Your task to perform on an android device: set an alarm Image 0: 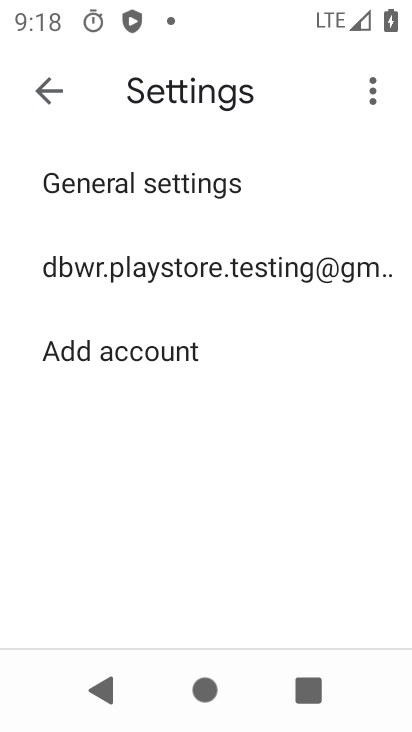
Step 0: press home button
Your task to perform on an android device: set an alarm Image 1: 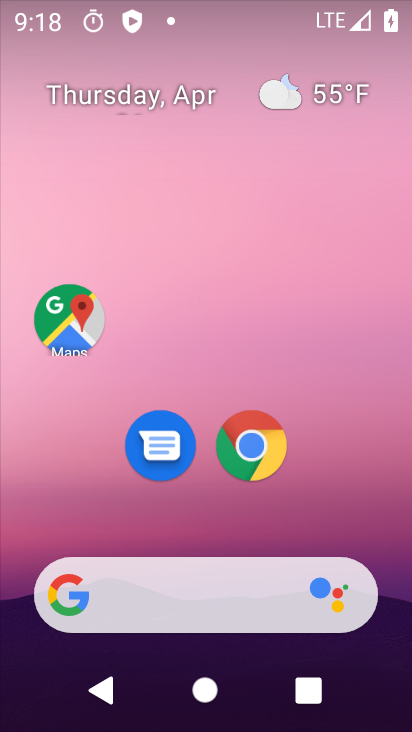
Step 1: drag from (382, 543) to (389, 15)
Your task to perform on an android device: set an alarm Image 2: 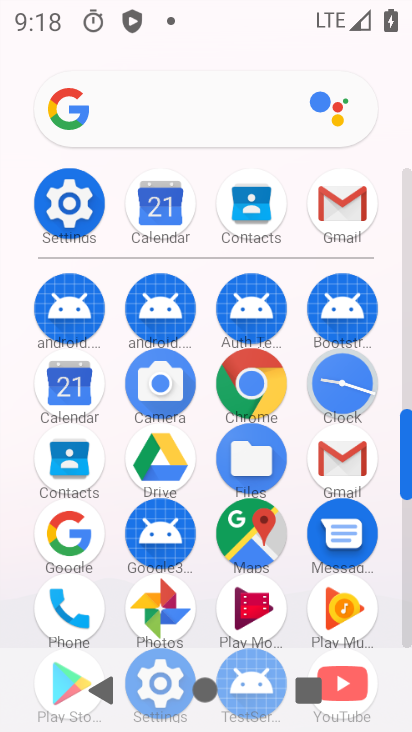
Step 2: click (325, 391)
Your task to perform on an android device: set an alarm Image 3: 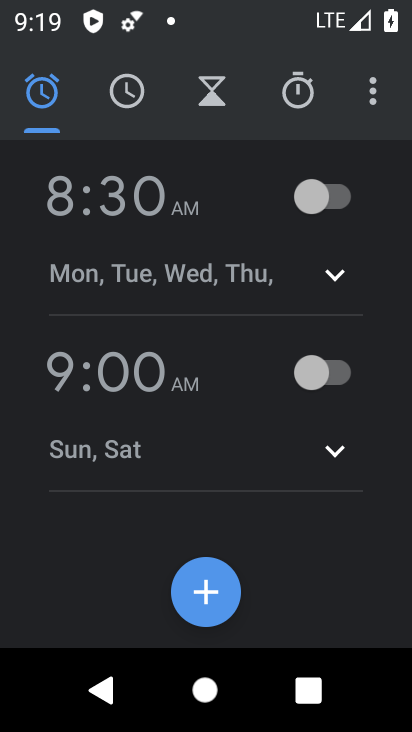
Step 3: click (204, 599)
Your task to perform on an android device: set an alarm Image 4: 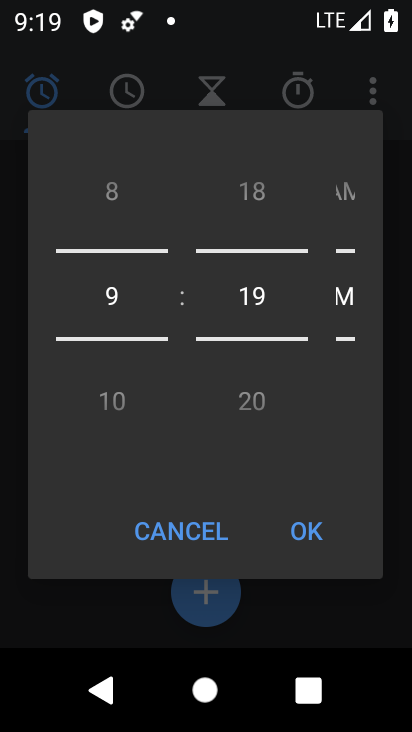
Step 4: drag from (105, 295) to (102, 564)
Your task to perform on an android device: set an alarm Image 5: 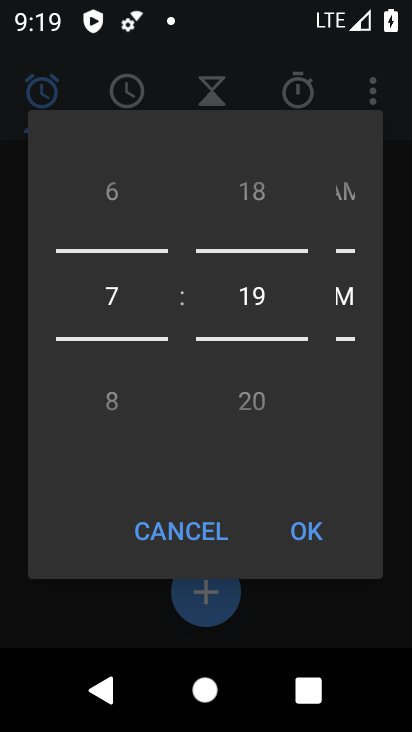
Step 5: drag from (127, 290) to (128, 532)
Your task to perform on an android device: set an alarm Image 6: 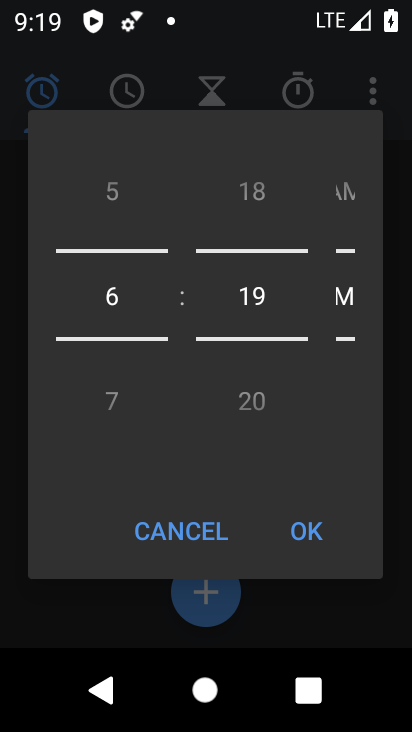
Step 6: drag from (267, 297) to (260, 595)
Your task to perform on an android device: set an alarm Image 7: 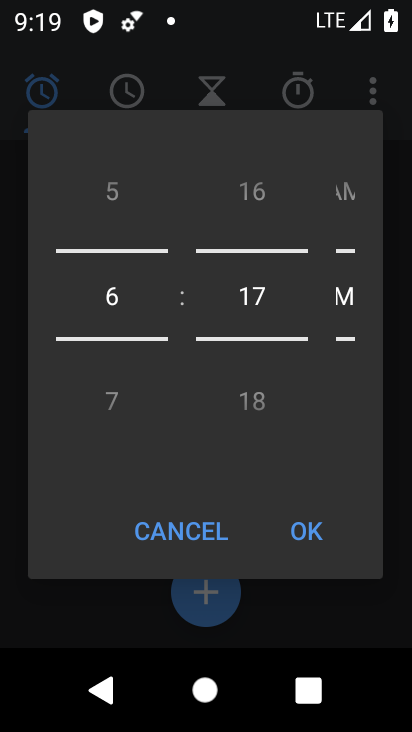
Step 7: drag from (252, 307) to (244, 655)
Your task to perform on an android device: set an alarm Image 8: 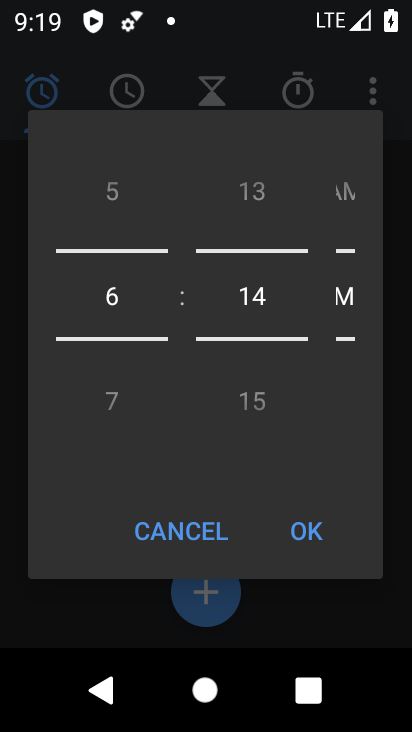
Step 8: click (342, 197)
Your task to perform on an android device: set an alarm Image 9: 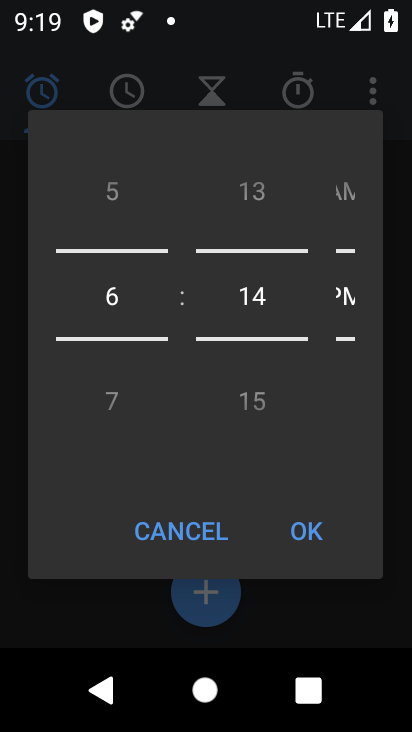
Step 9: drag from (352, 276) to (344, 402)
Your task to perform on an android device: set an alarm Image 10: 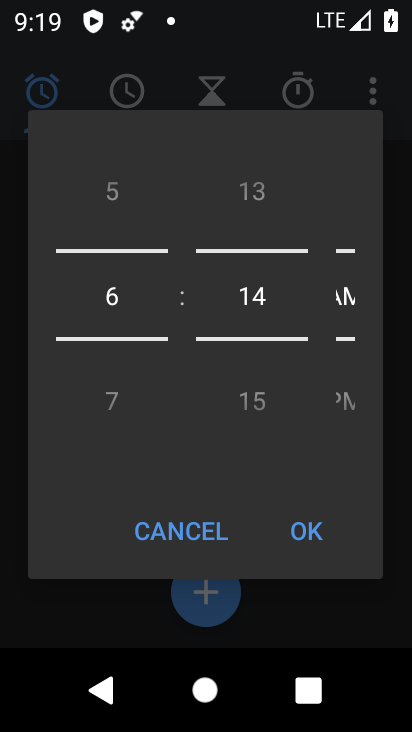
Step 10: click (305, 530)
Your task to perform on an android device: set an alarm Image 11: 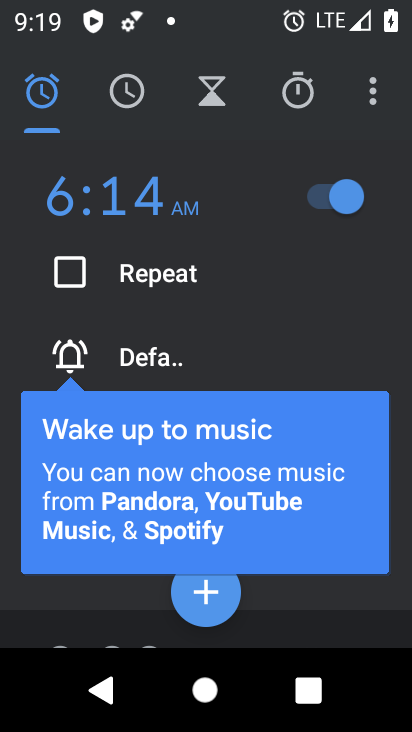
Step 11: task complete